Your task to perform on an android device: open a bookmark in the chrome app Image 0: 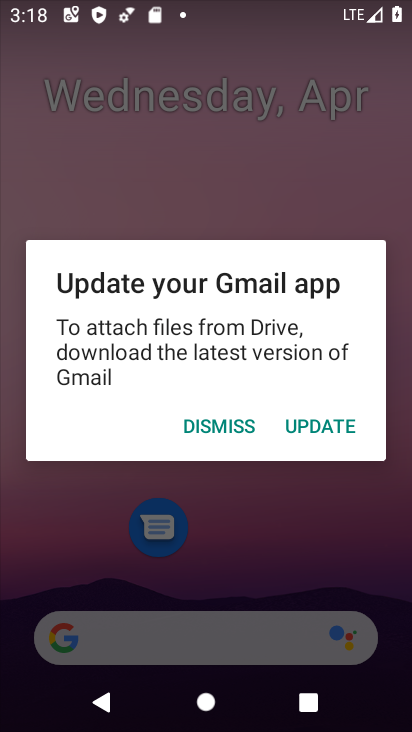
Step 0: press home button
Your task to perform on an android device: open a bookmark in the chrome app Image 1: 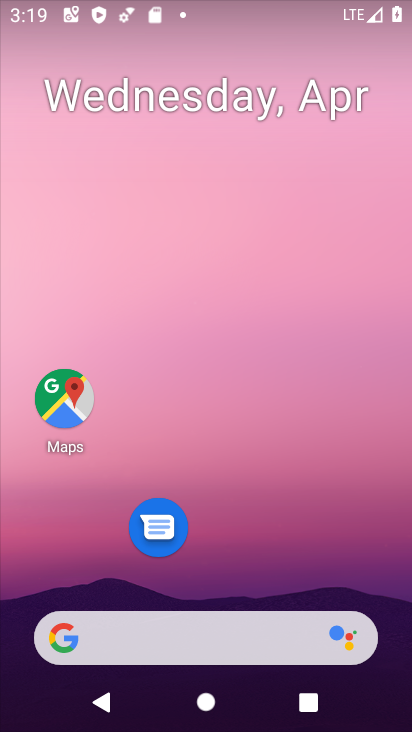
Step 1: drag from (194, 447) to (214, 45)
Your task to perform on an android device: open a bookmark in the chrome app Image 2: 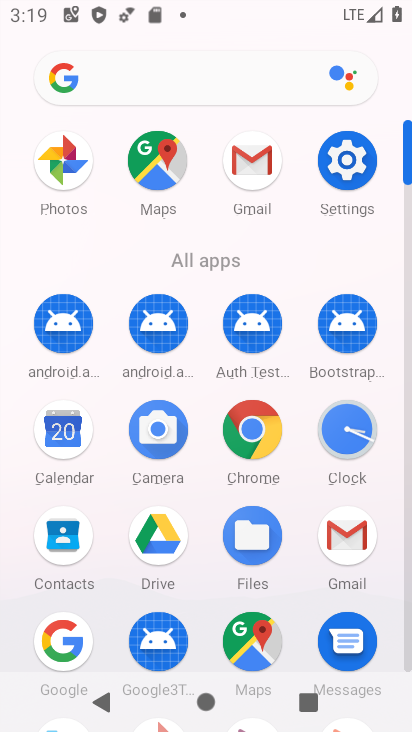
Step 2: click (249, 446)
Your task to perform on an android device: open a bookmark in the chrome app Image 3: 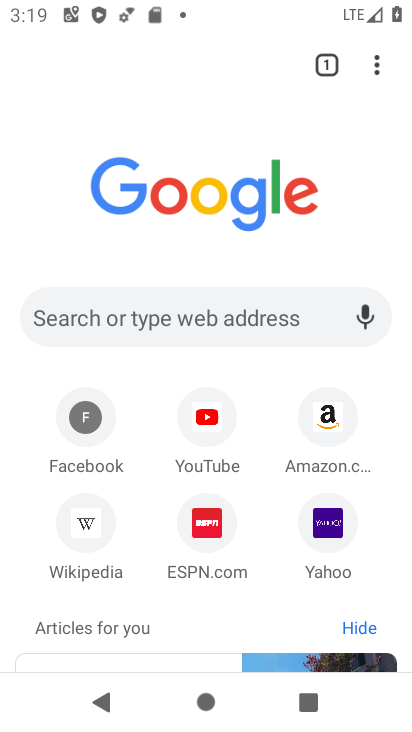
Step 3: click (381, 76)
Your task to perform on an android device: open a bookmark in the chrome app Image 4: 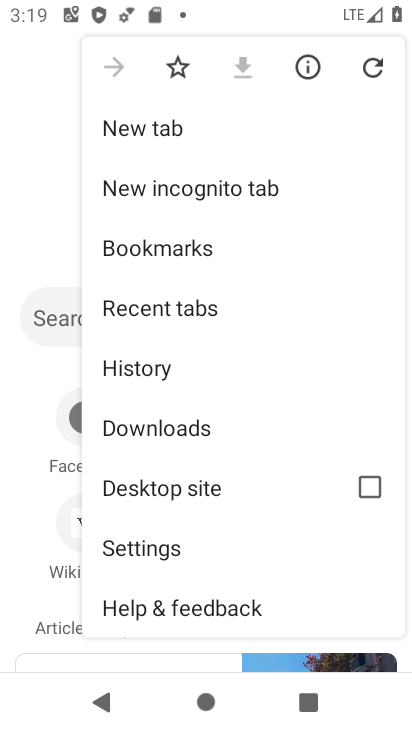
Step 4: click (171, 263)
Your task to perform on an android device: open a bookmark in the chrome app Image 5: 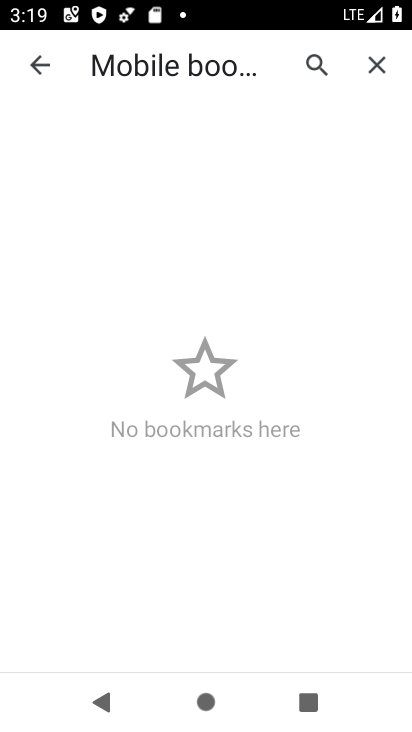
Step 5: task complete